Your task to perform on an android device: toggle improve location accuracy Image 0: 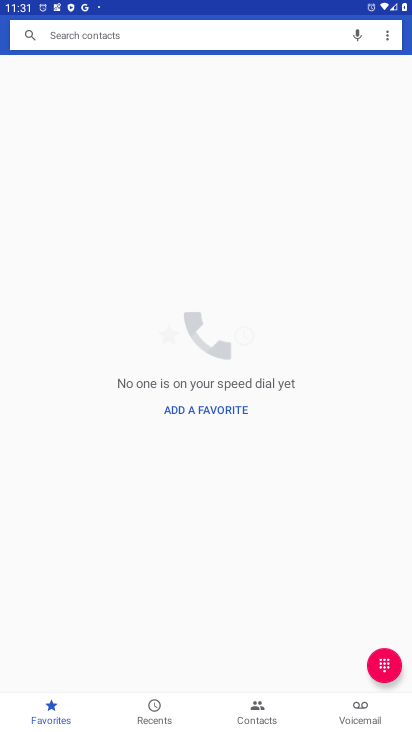
Step 0: press home button
Your task to perform on an android device: toggle improve location accuracy Image 1: 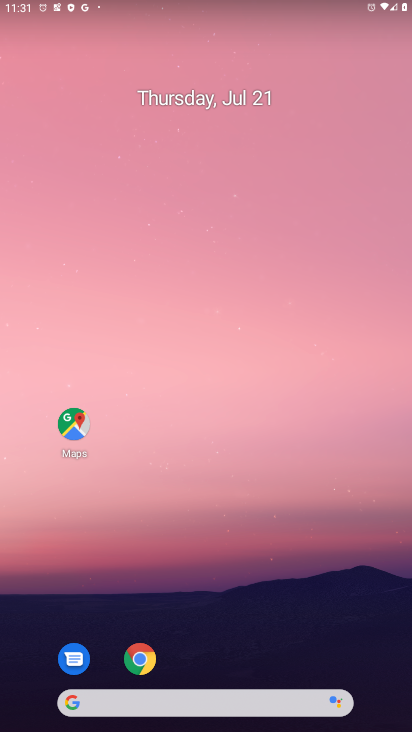
Step 1: drag from (191, 699) to (233, 264)
Your task to perform on an android device: toggle improve location accuracy Image 2: 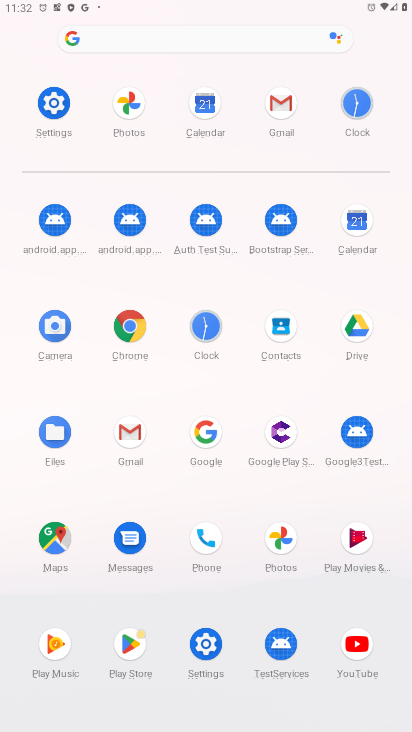
Step 2: click (204, 644)
Your task to perform on an android device: toggle improve location accuracy Image 3: 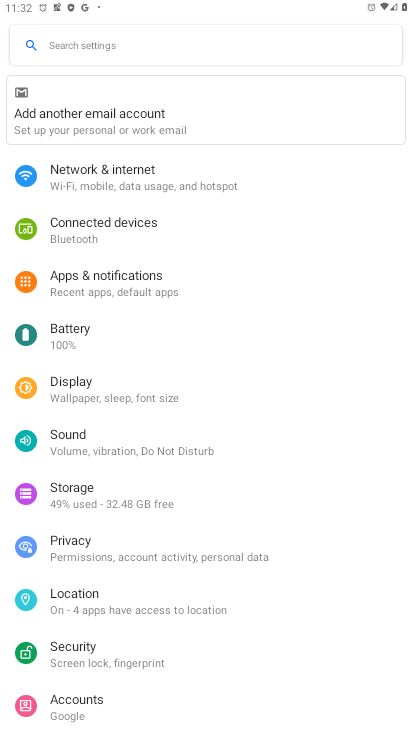
Step 3: click (76, 596)
Your task to perform on an android device: toggle improve location accuracy Image 4: 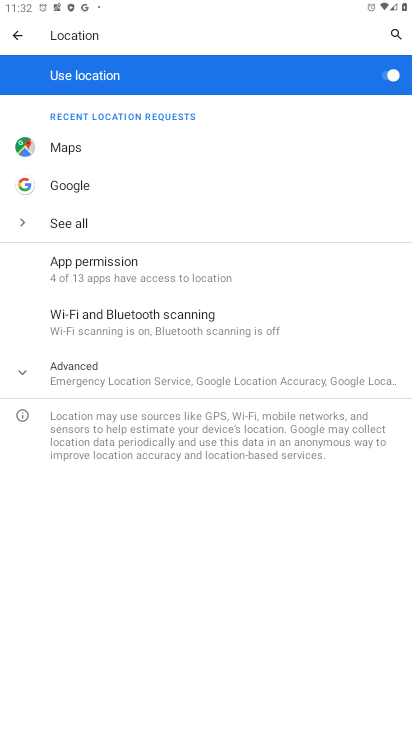
Step 4: click (140, 377)
Your task to perform on an android device: toggle improve location accuracy Image 5: 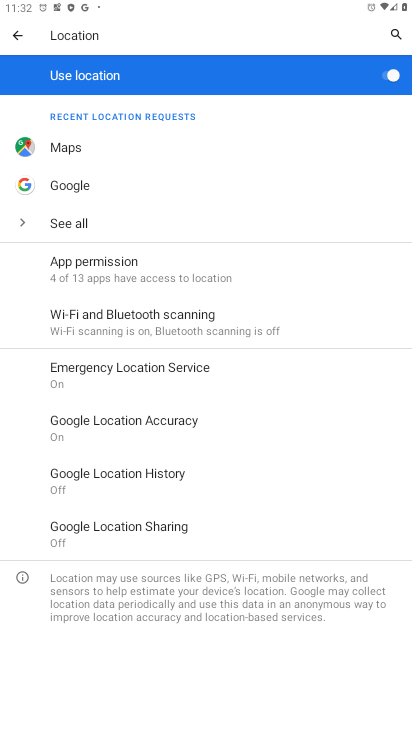
Step 5: click (159, 423)
Your task to perform on an android device: toggle improve location accuracy Image 6: 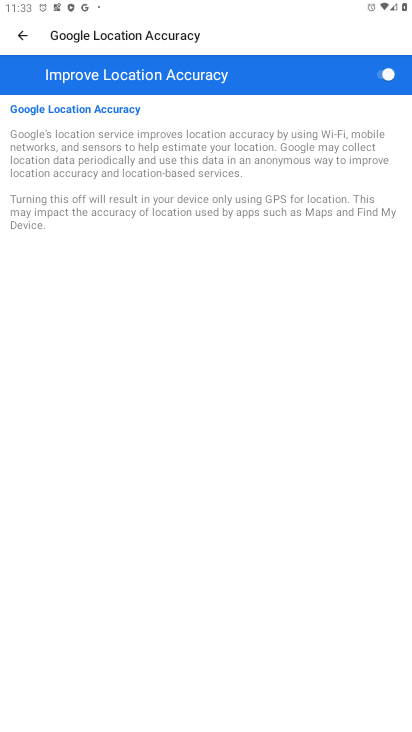
Step 6: click (384, 79)
Your task to perform on an android device: toggle improve location accuracy Image 7: 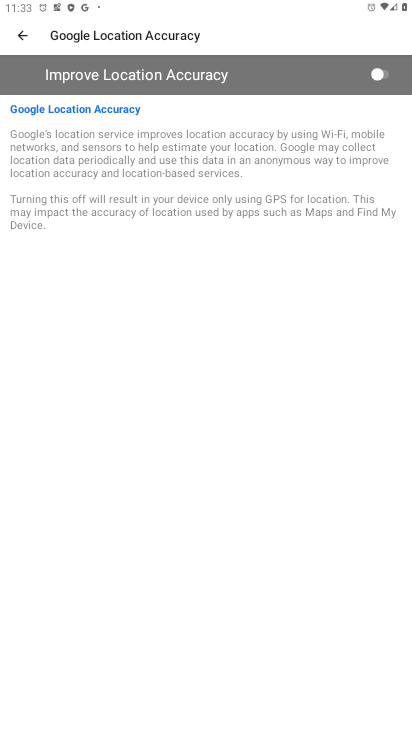
Step 7: task complete